Your task to perform on an android device: open chrome and create a bookmark for the current page Image 0: 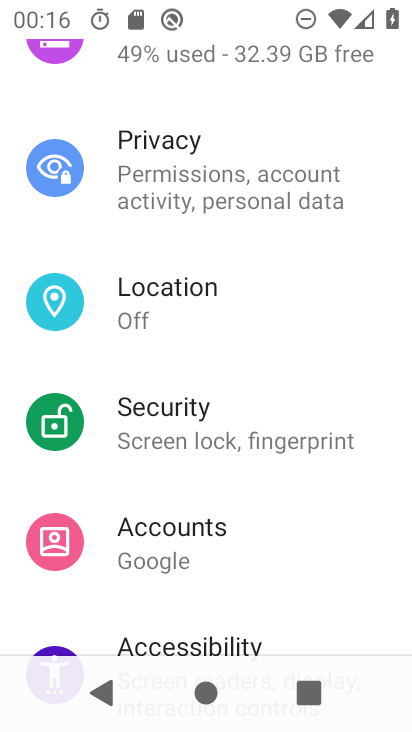
Step 0: press home button
Your task to perform on an android device: open chrome and create a bookmark for the current page Image 1: 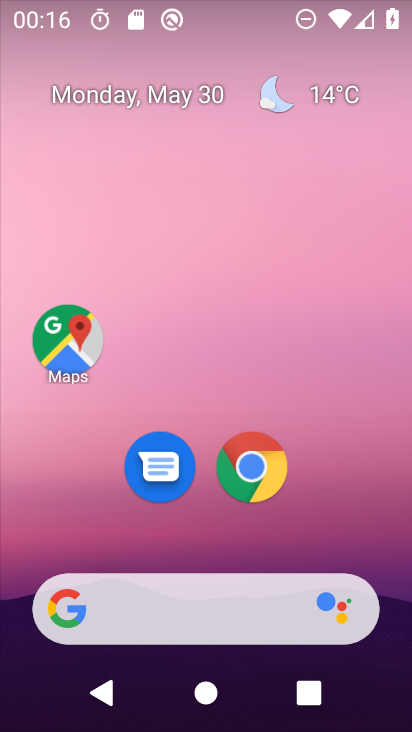
Step 1: click (270, 474)
Your task to perform on an android device: open chrome and create a bookmark for the current page Image 2: 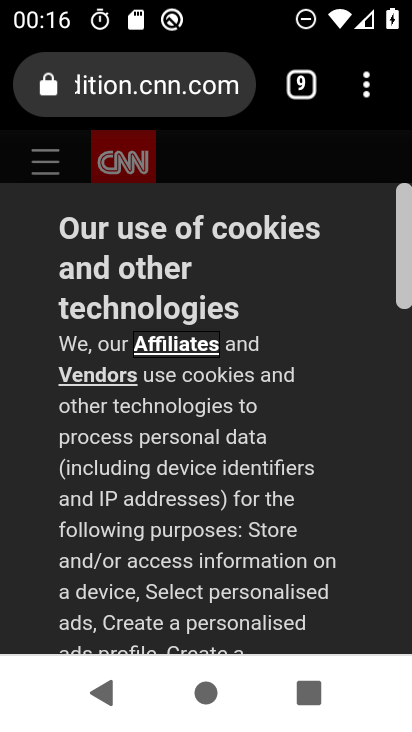
Step 2: click (360, 96)
Your task to perform on an android device: open chrome and create a bookmark for the current page Image 3: 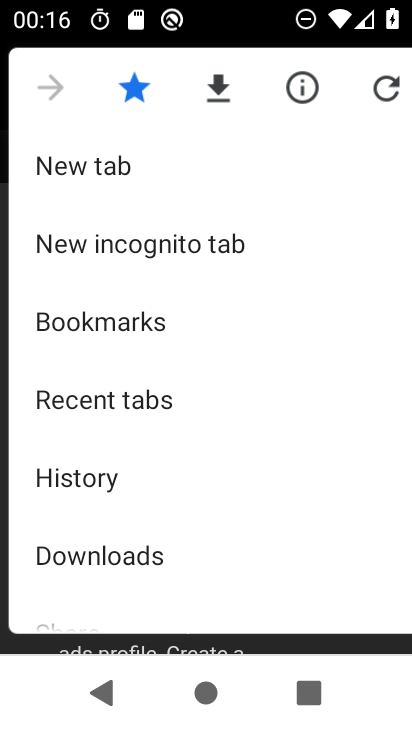
Step 3: click (140, 90)
Your task to perform on an android device: open chrome and create a bookmark for the current page Image 4: 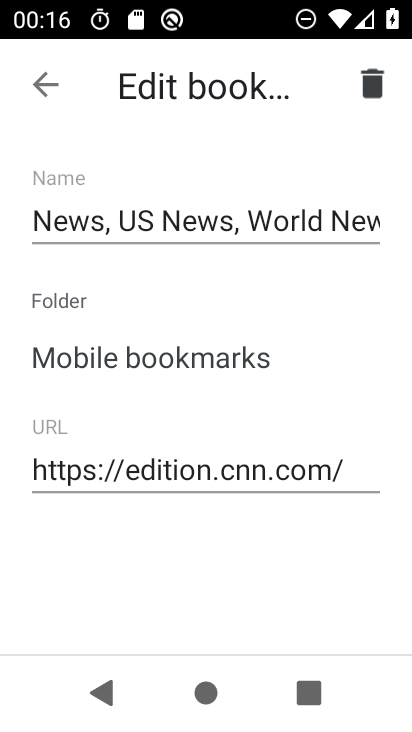
Step 4: task complete